Your task to perform on an android device: Search for a 100 ft extension cord Image 0: 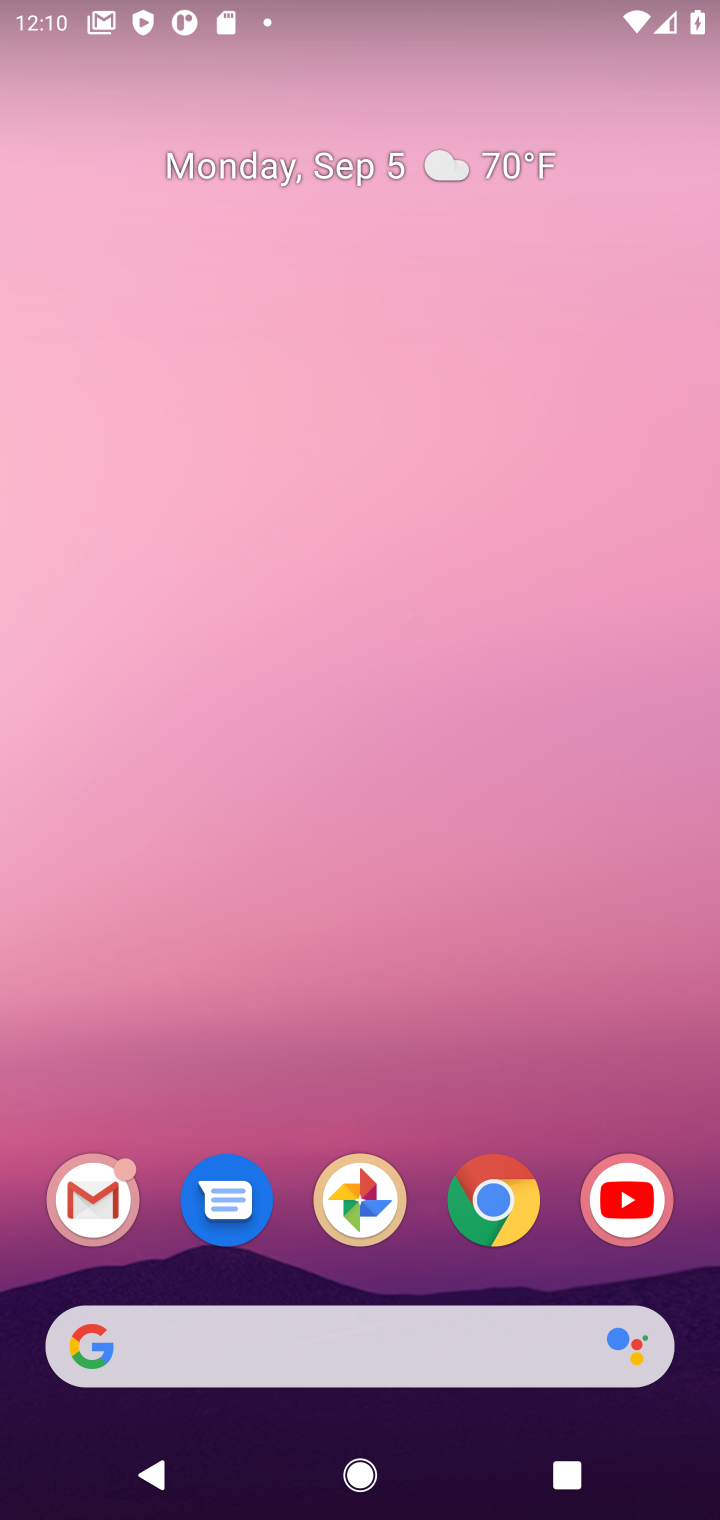
Step 0: drag from (400, 551) to (404, 414)
Your task to perform on an android device: Search for a 100 ft extension cord Image 1: 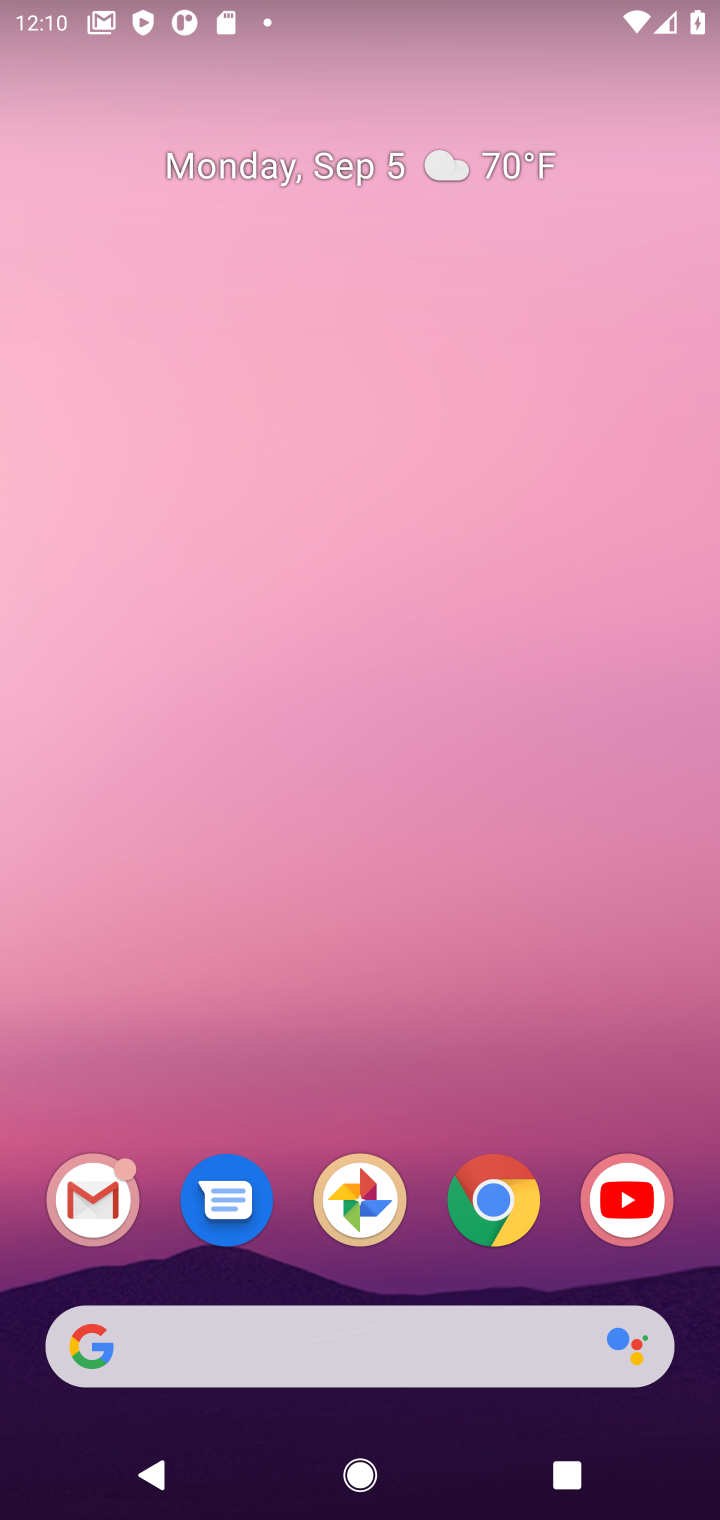
Step 1: click (498, 1177)
Your task to perform on an android device: Search for a 100 ft extension cord Image 2: 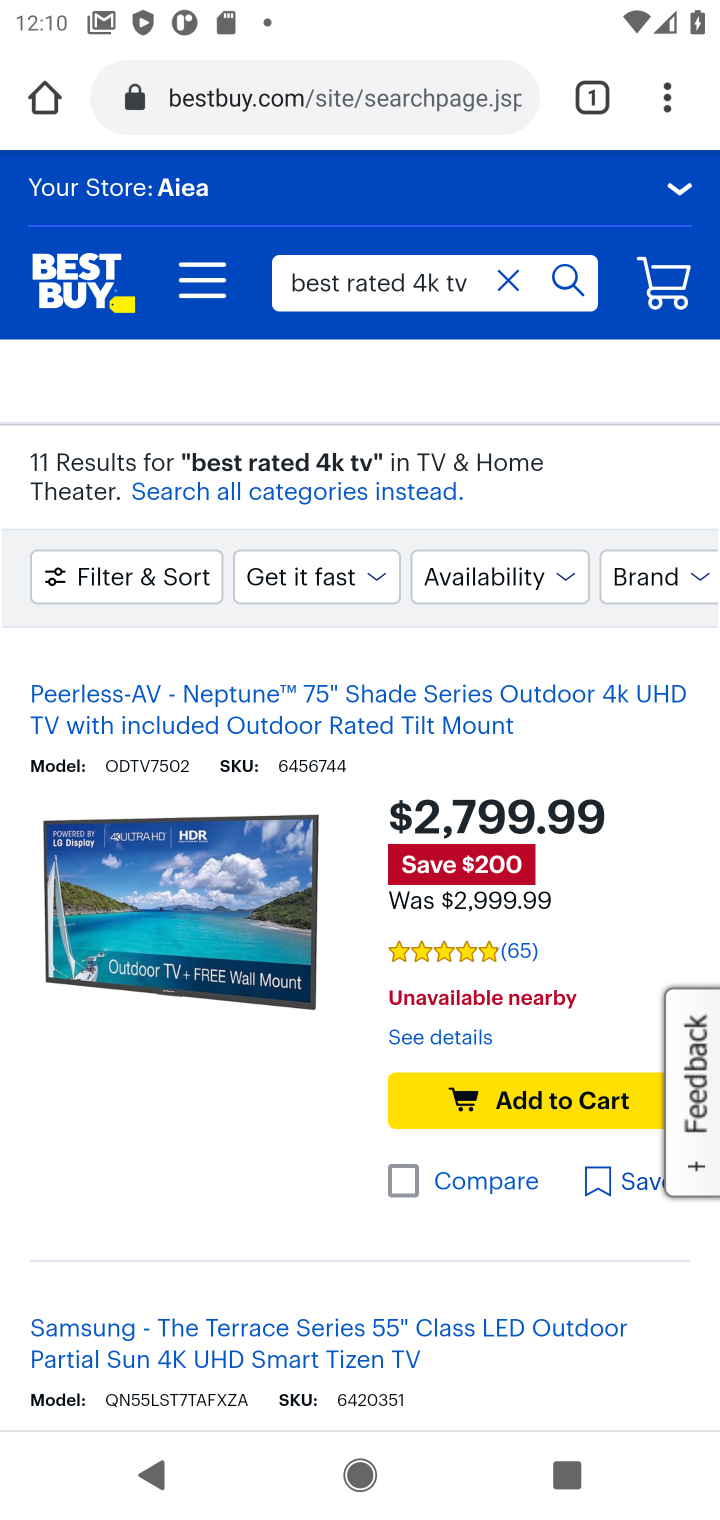
Step 2: click (456, 115)
Your task to perform on an android device: Search for a 100 ft extension cord Image 3: 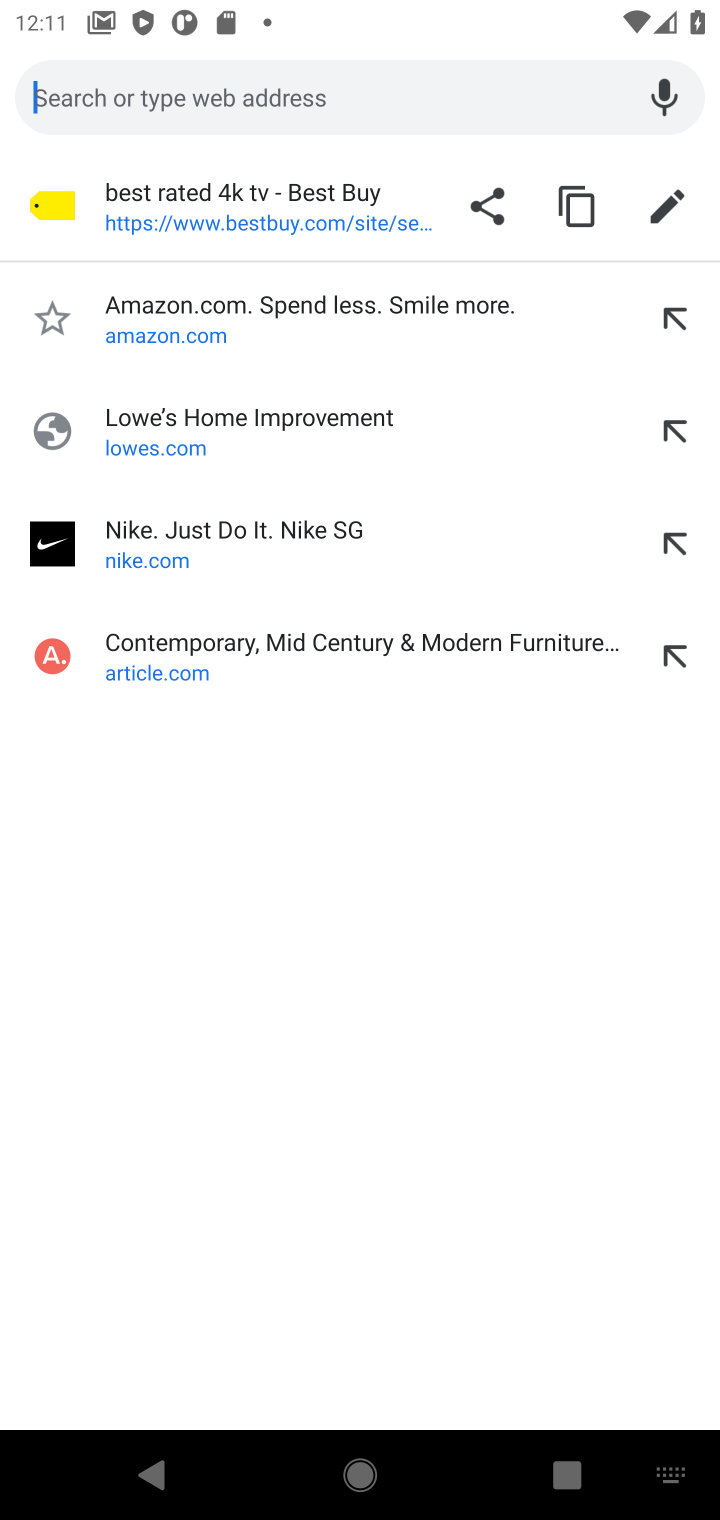
Step 3: type "100ft extension cord"
Your task to perform on an android device: Search for a 100 ft extension cord Image 4: 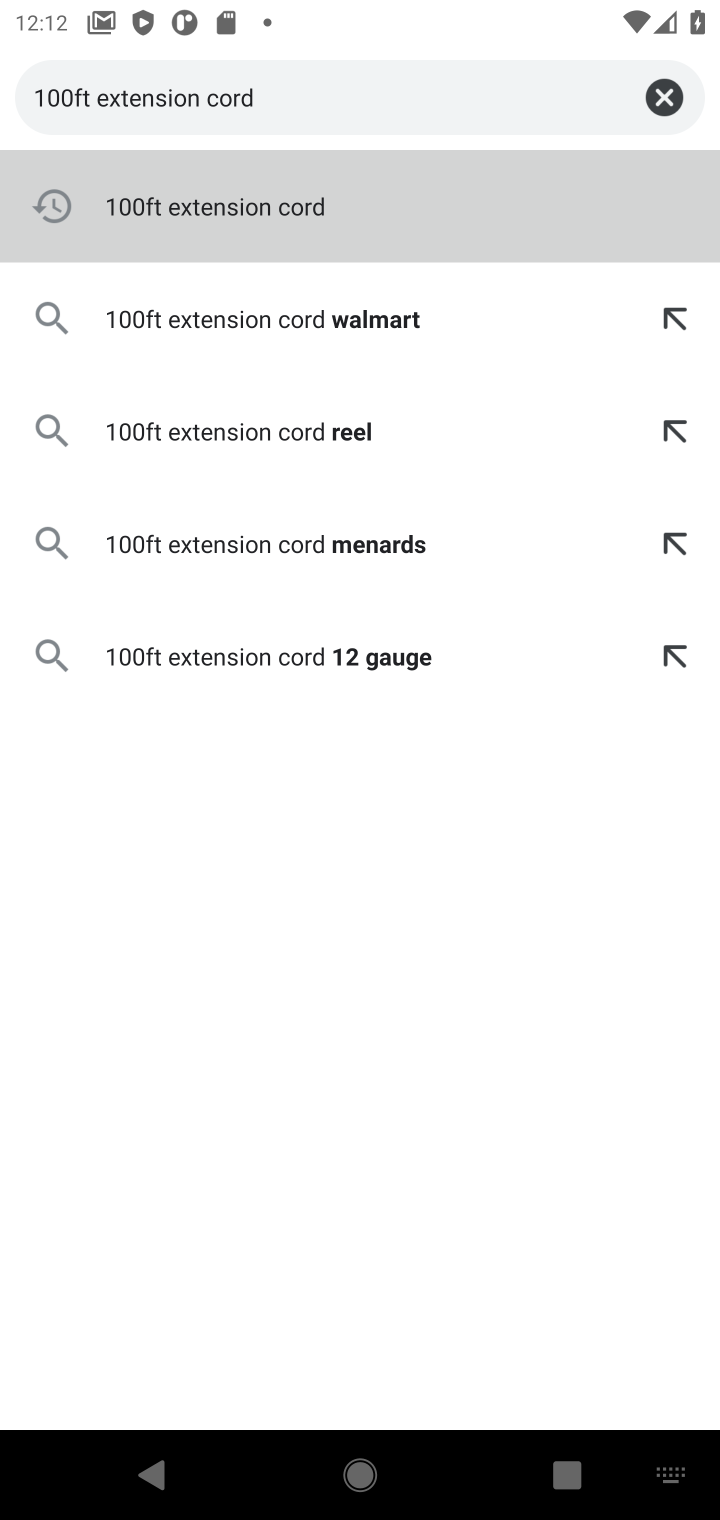
Step 4: click (254, 227)
Your task to perform on an android device: Search for a 100 ft extension cord Image 5: 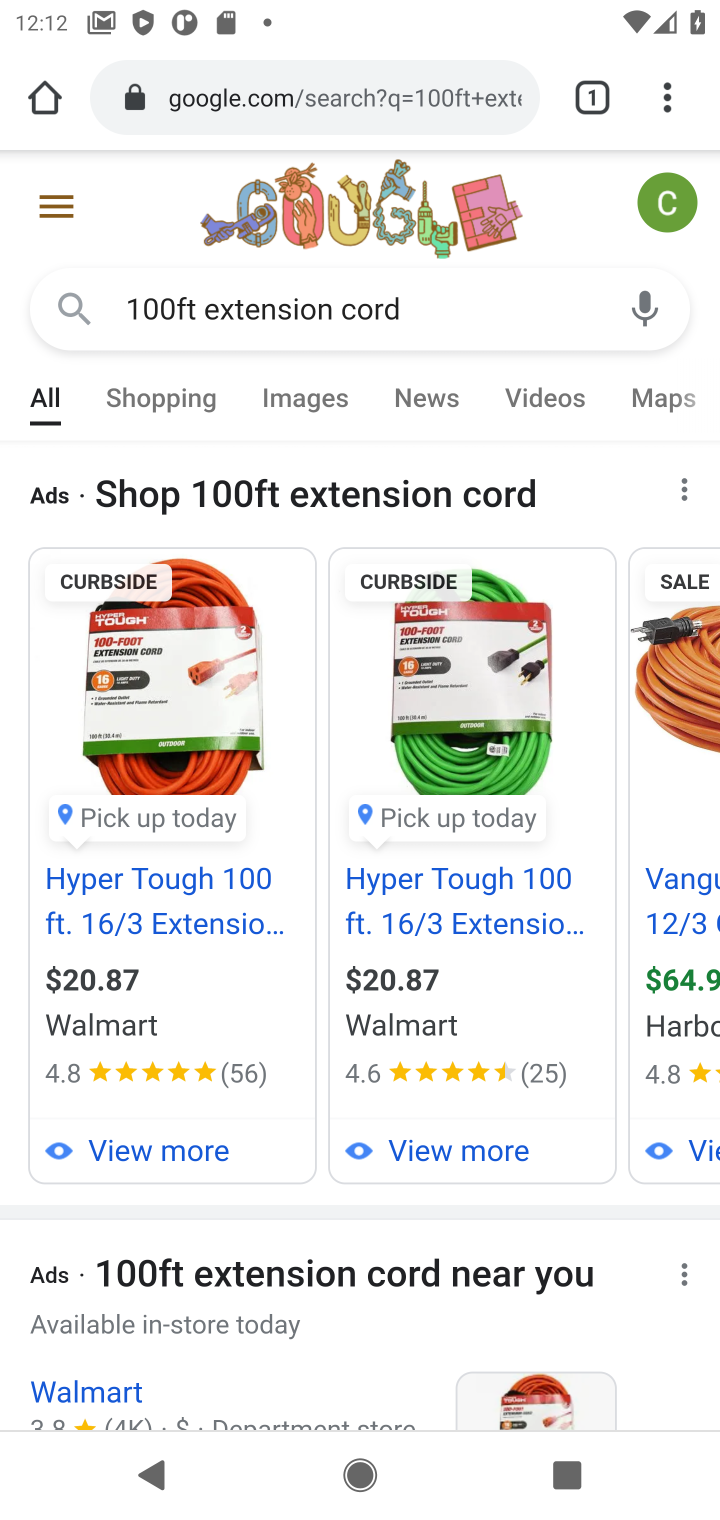
Step 5: click (254, 227)
Your task to perform on an android device: Search for a 100 ft extension cord Image 6: 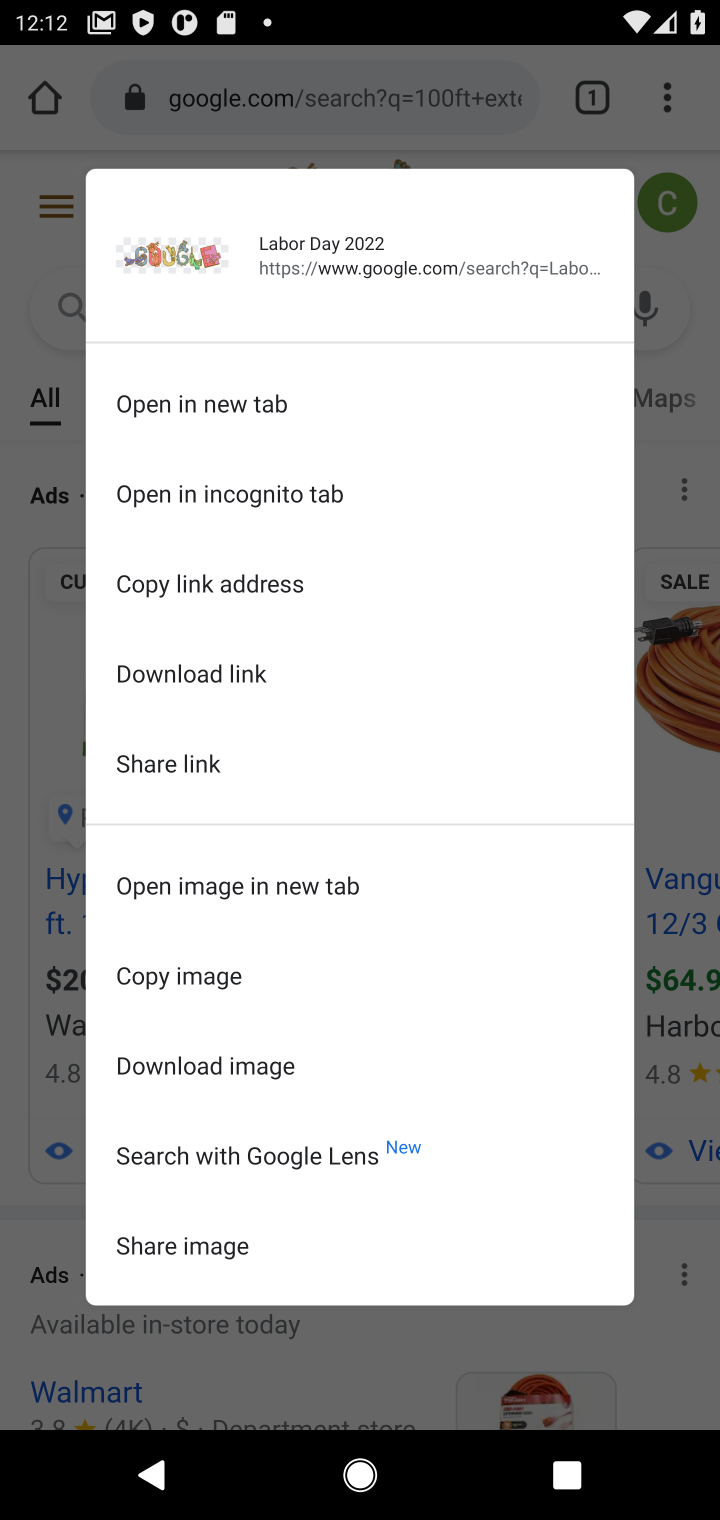
Step 6: task complete